Your task to perform on an android device: Open Reddit.com Image 0: 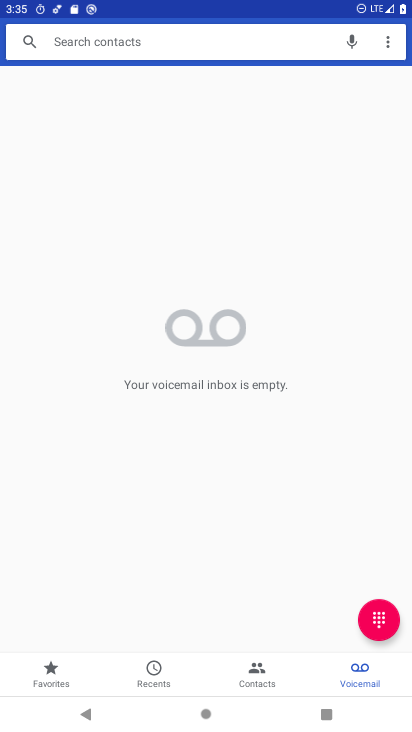
Step 0: press home button
Your task to perform on an android device: Open Reddit.com Image 1: 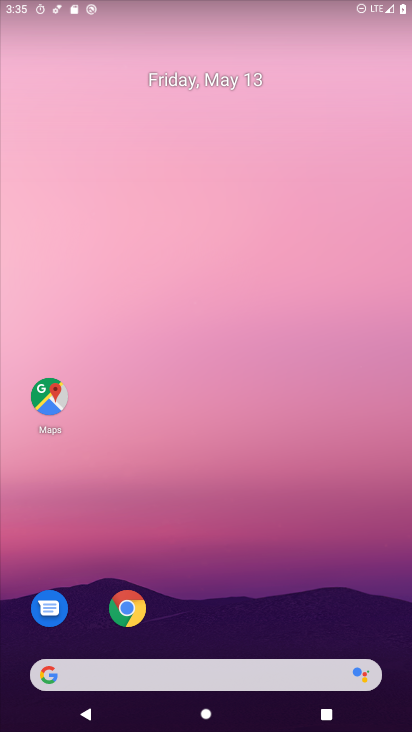
Step 1: click (131, 598)
Your task to perform on an android device: Open Reddit.com Image 2: 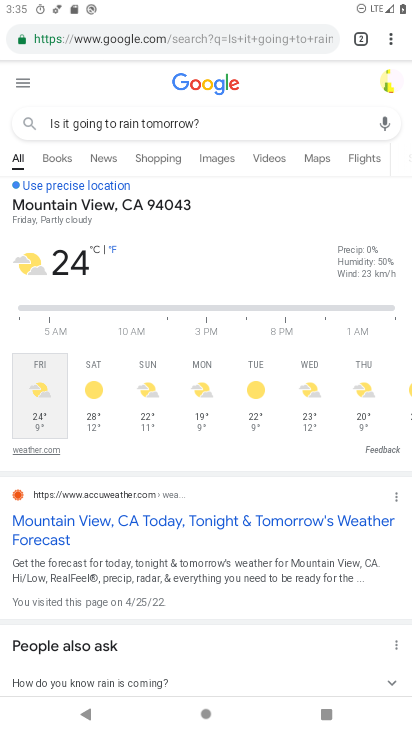
Step 2: click (266, 132)
Your task to perform on an android device: Open Reddit.com Image 3: 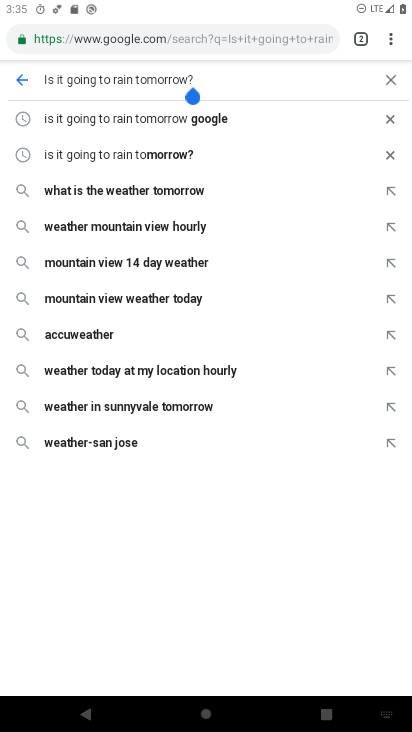
Step 3: click (389, 86)
Your task to perform on an android device: Open Reddit.com Image 4: 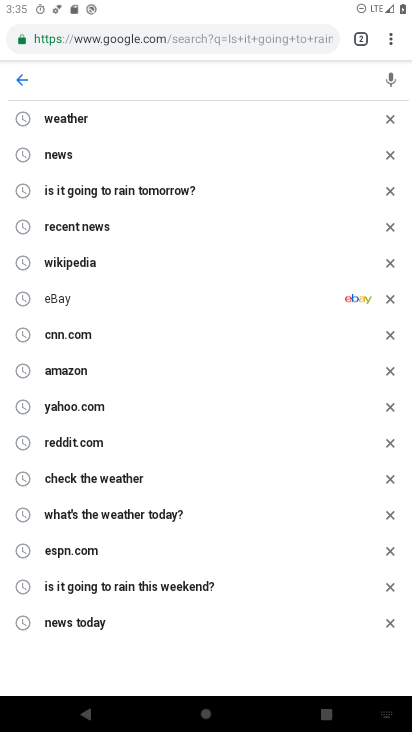
Step 4: type " Reddit.com"
Your task to perform on an android device: Open Reddit.com Image 5: 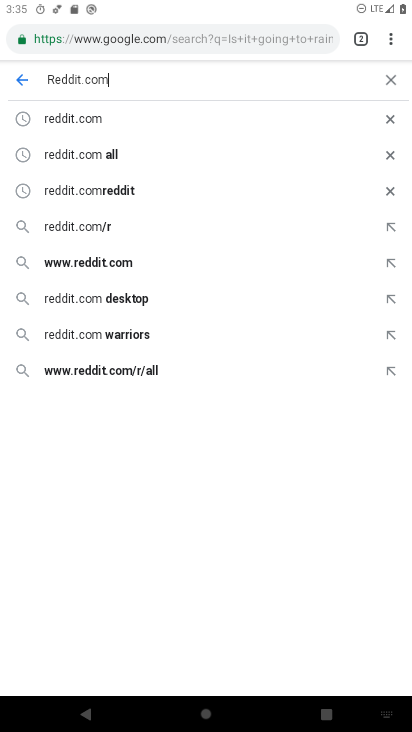
Step 5: click (80, 114)
Your task to perform on an android device: Open Reddit.com Image 6: 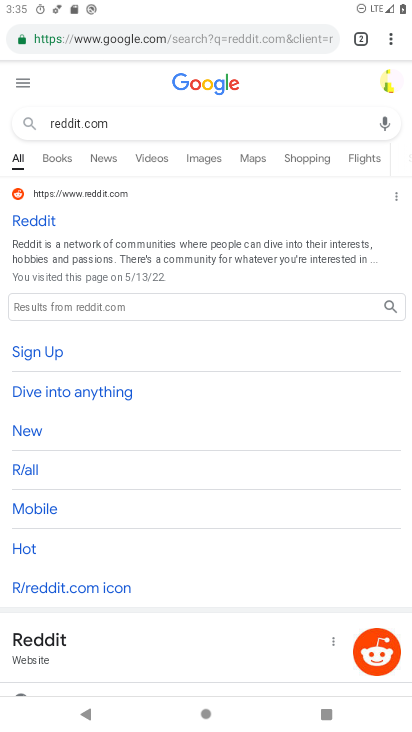
Step 6: task complete